Your task to perform on an android device: set the stopwatch Image 0: 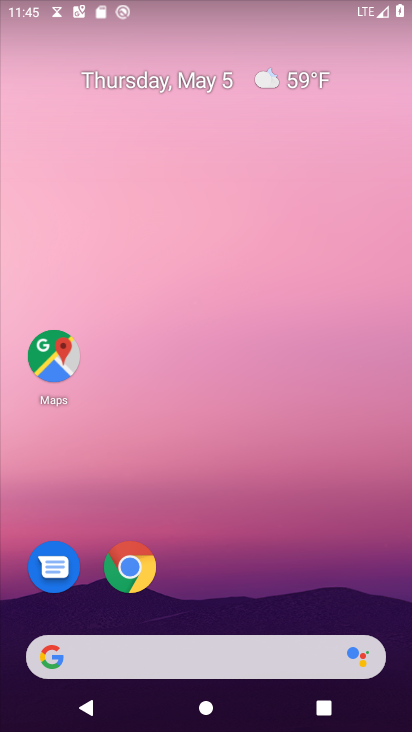
Step 0: drag from (276, 555) to (281, 6)
Your task to perform on an android device: set the stopwatch Image 1: 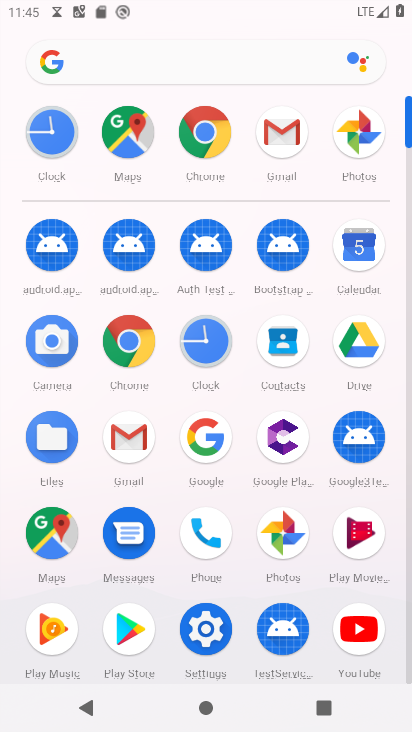
Step 1: click (48, 129)
Your task to perform on an android device: set the stopwatch Image 2: 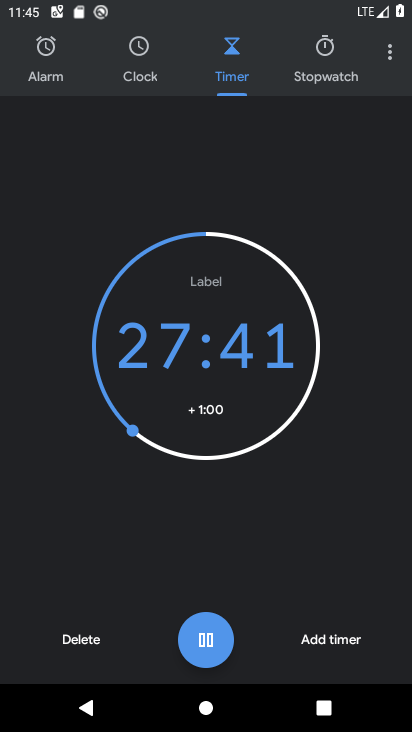
Step 2: click (327, 72)
Your task to perform on an android device: set the stopwatch Image 3: 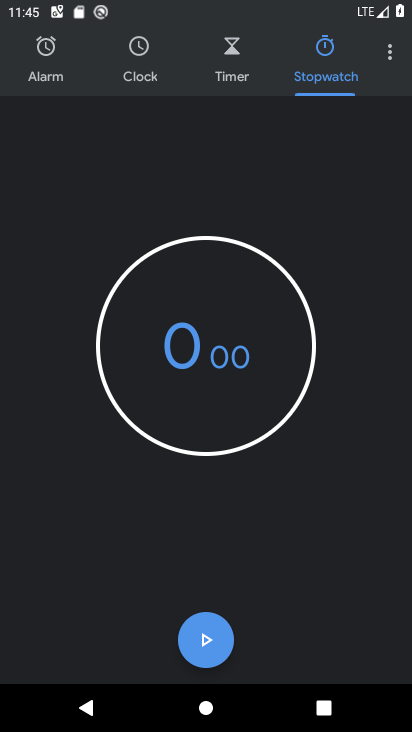
Step 3: click (207, 627)
Your task to perform on an android device: set the stopwatch Image 4: 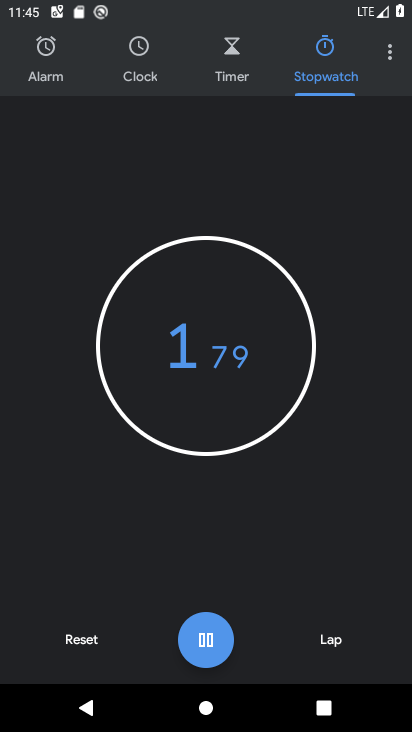
Step 4: click (205, 634)
Your task to perform on an android device: set the stopwatch Image 5: 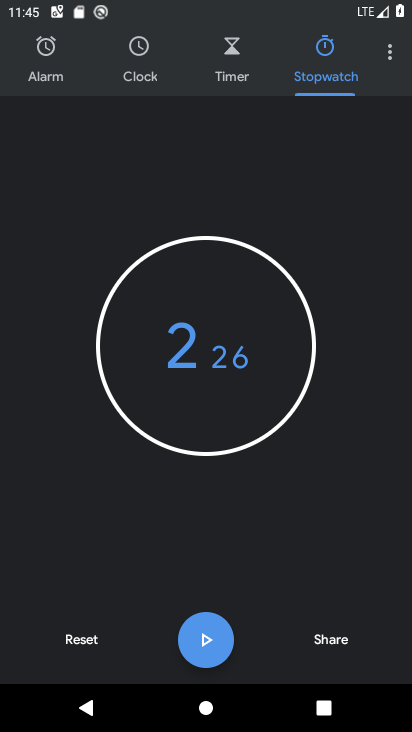
Step 5: task complete